Your task to perform on an android device: snooze an email in the gmail app Image 0: 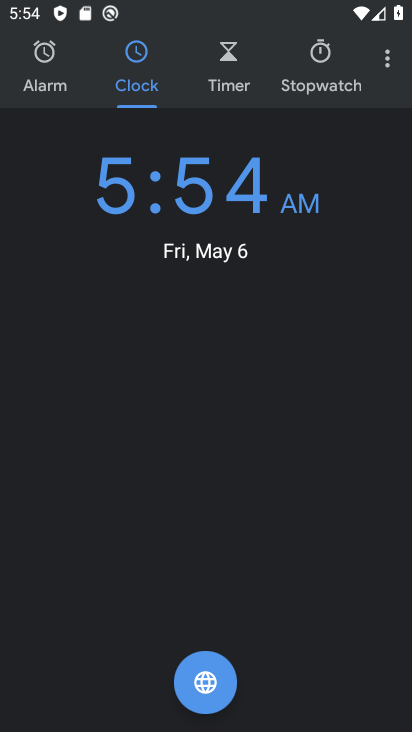
Step 0: press back button
Your task to perform on an android device: snooze an email in the gmail app Image 1: 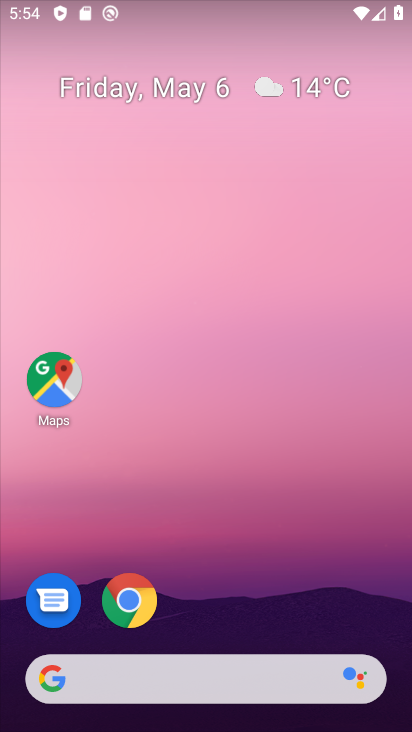
Step 1: drag from (273, 582) to (218, 20)
Your task to perform on an android device: snooze an email in the gmail app Image 2: 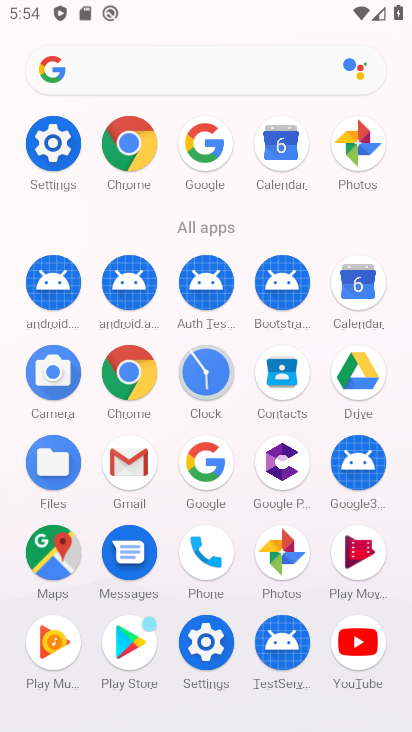
Step 2: click (120, 465)
Your task to perform on an android device: snooze an email in the gmail app Image 3: 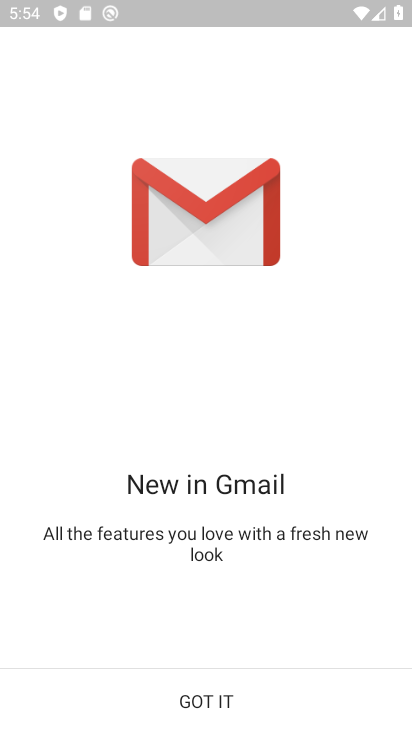
Step 3: click (189, 706)
Your task to perform on an android device: snooze an email in the gmail app Image 4: 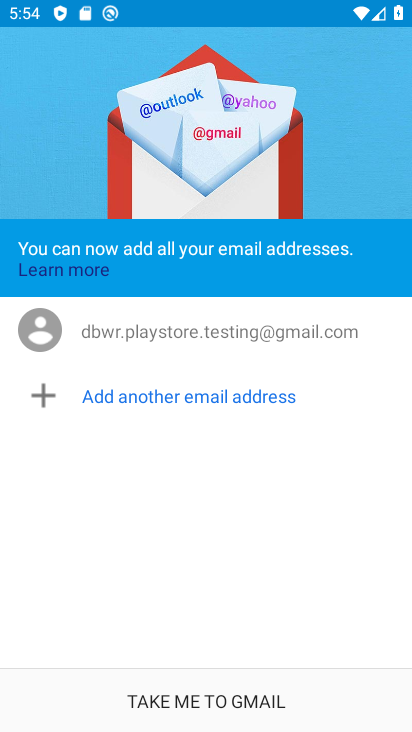
Step 4: click (189, 706)
Your task to perform on an android device: snooze an email in the gmail app Image 5: 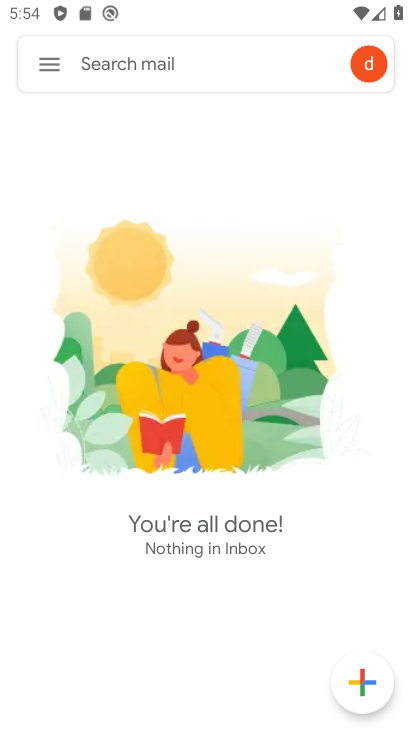
Step 5: click (40, 63)
Your task to perform on an android device: snooze an email in the gmail app Image 6: 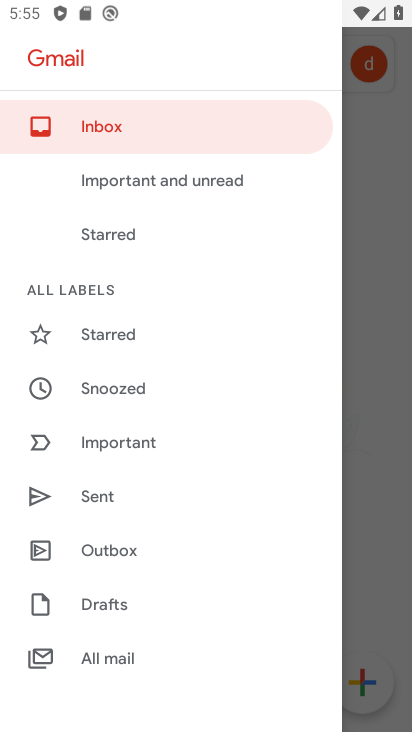
Step 6: click (98, 651)
Your task to perform on an android device: snooze an email in the gmail app Image 7: 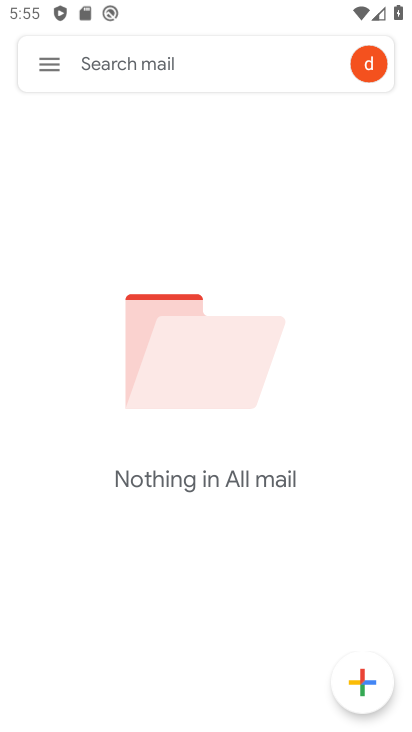
Step 7: task complete